Your task to perform on an android device: Set the phone to "Do not disturb". Image 0: 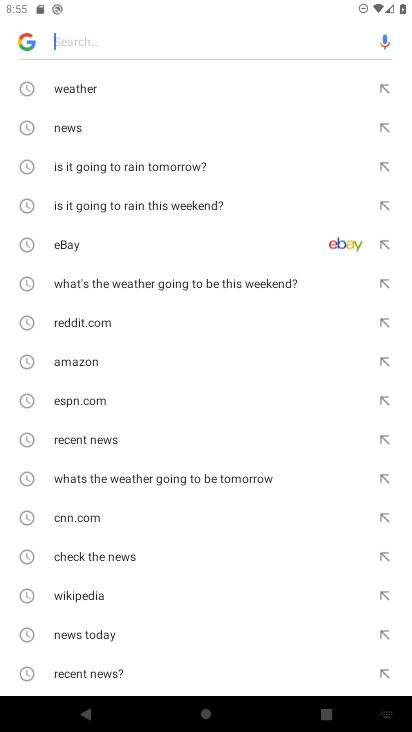
Step 0: press home button
Your task to perform on an android device: Set the phone to "Do not disturb". Image 1: 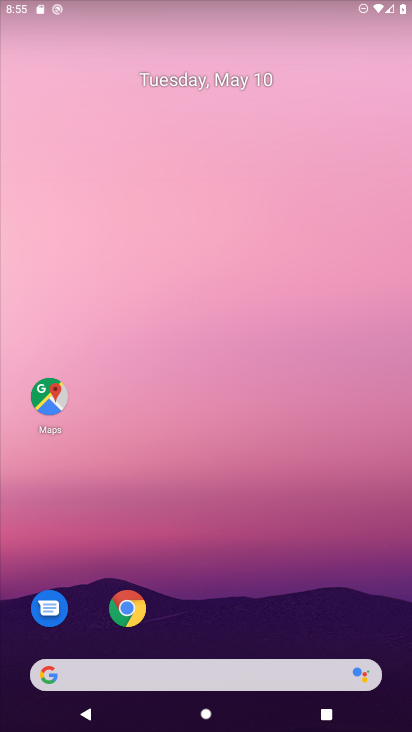
Step 1: task complete